Your task to perform on an android device: Open maps Image 0: 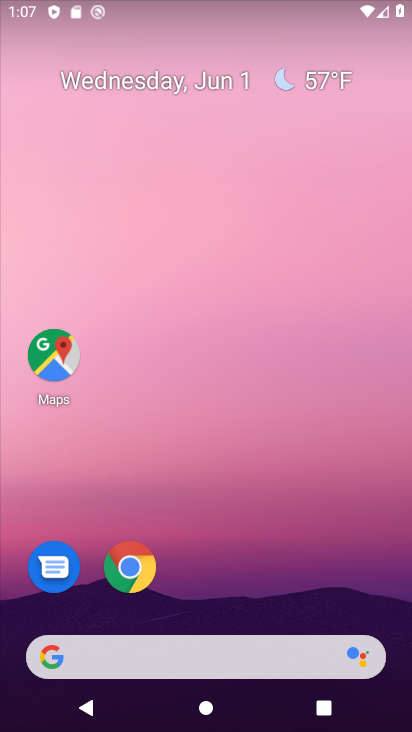
Step 0: click (52, 351)
Your task to perform on an android device: Open maps Image 1: 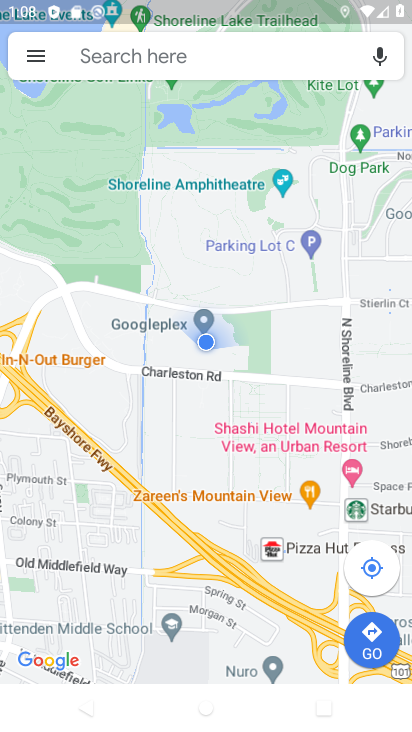
Step 1: task complete